Your task to perform on an android device: open app "Upside-Cash back on gas & food" (install if not already installed) Image 0: 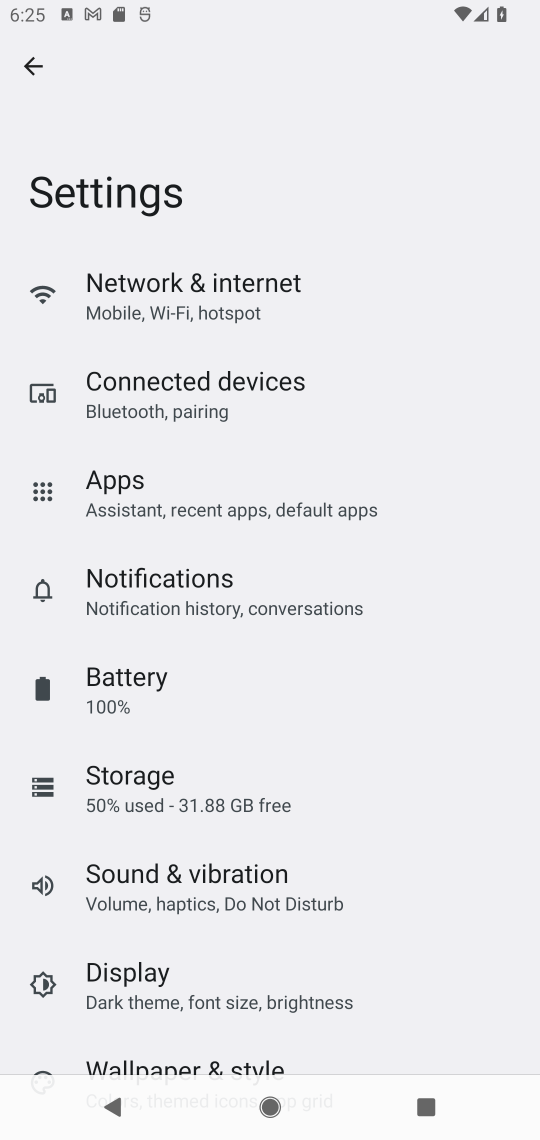
Step 0: press back button
Your task to perform on an android device: open app "Upside-Cash back on gas & food" (install if not already installed) Image 1: 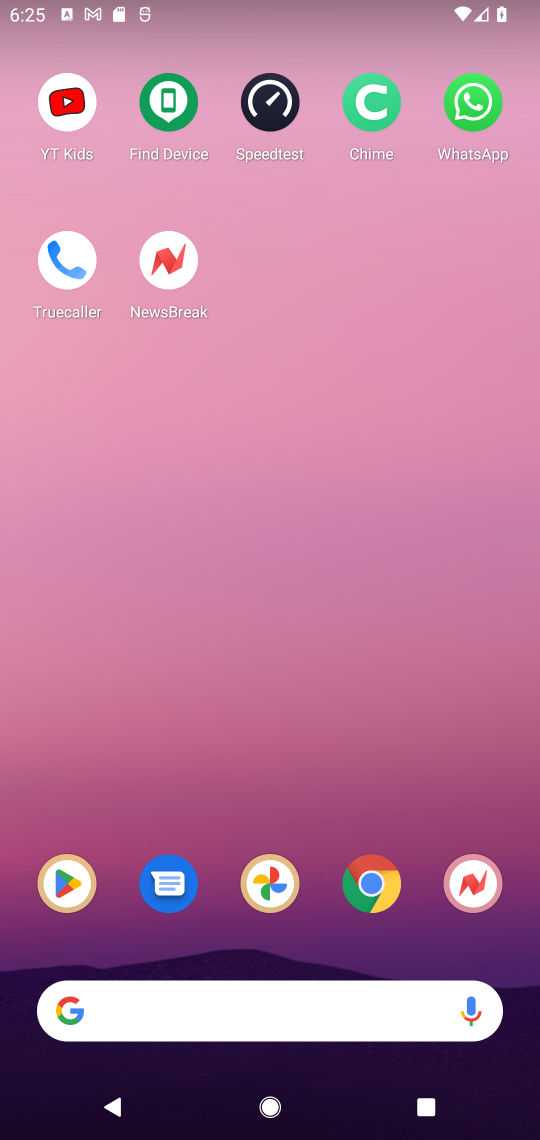
Step 1: click (50, 887)
Your task to perform on an android device: open app "Upside-Cash back on gas & food" (install if not already installed) Image 2: 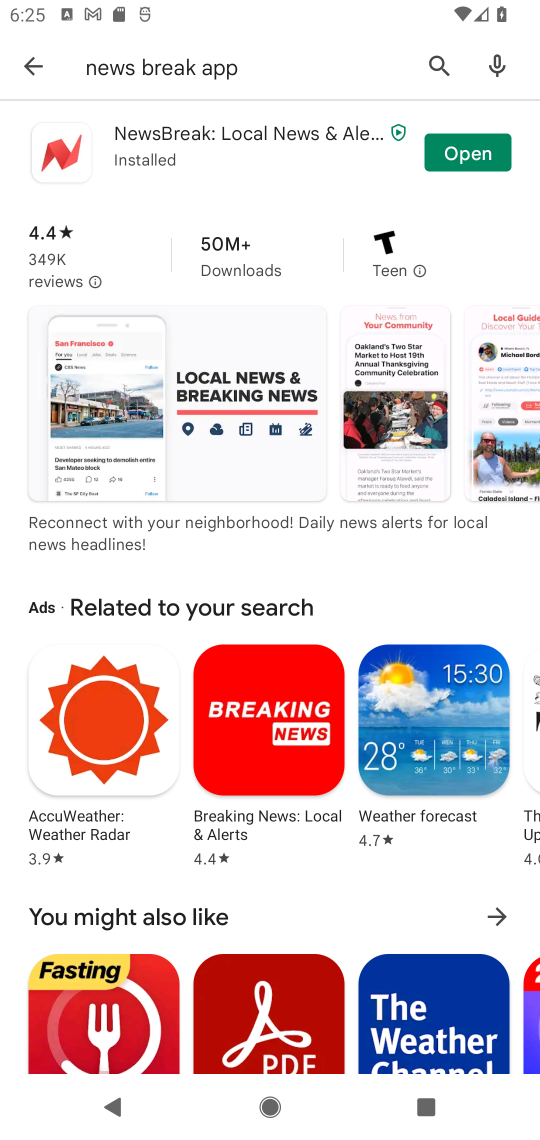
Step 2: click (422, 67)
Your task to perform on an android device: open app "Upside-Cash back on gas & food" (install if not already installed) Image 3: 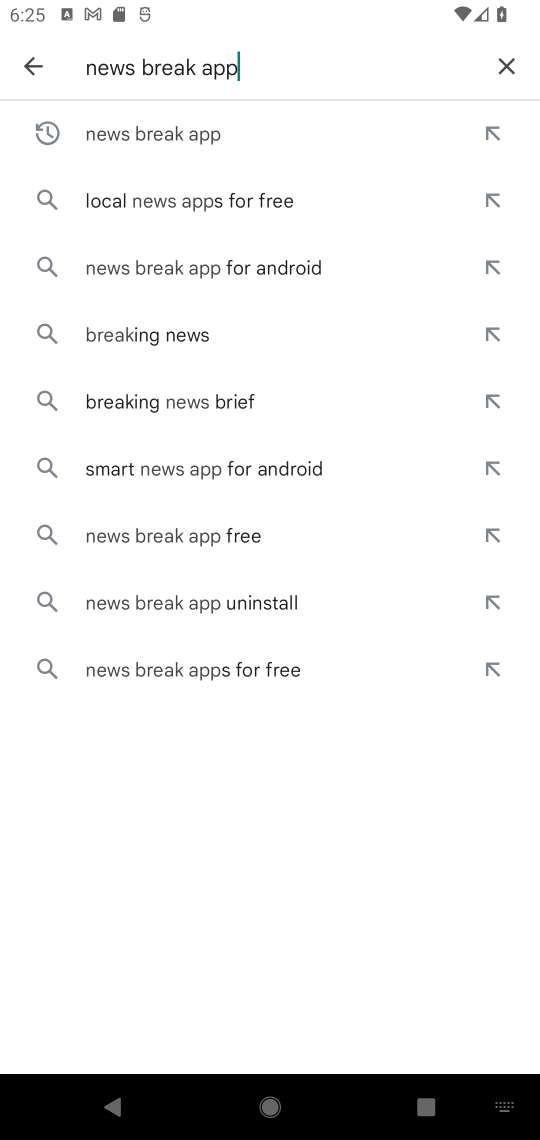
Step 3: click (507, 61)
Your task to perform on an android device: open app "Upside-Cash back on gas & food" (install if not already installed) Image 4: 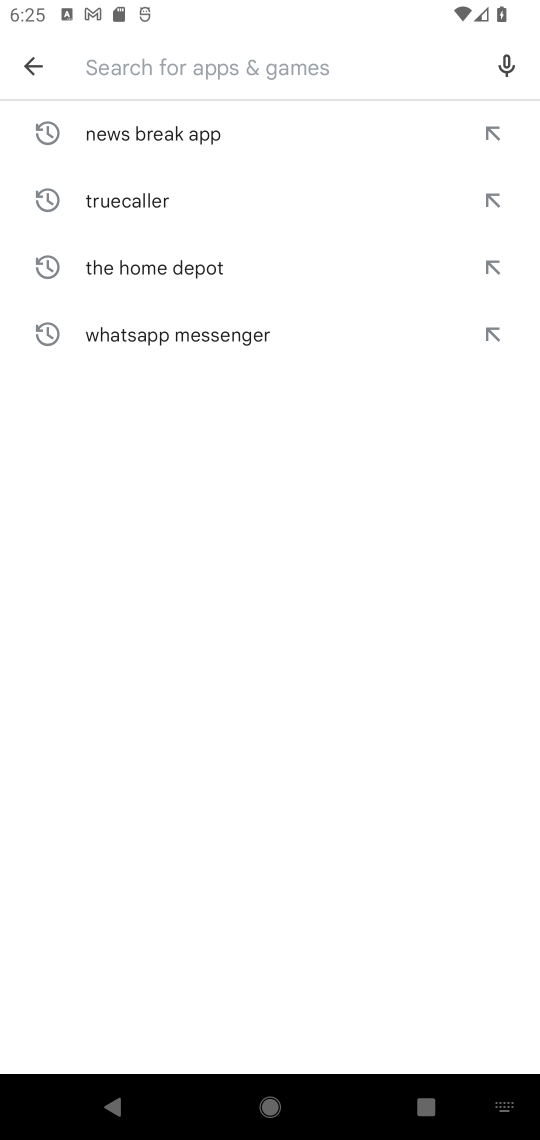
Step 4: click (156, 71)
Your task to perform on an android device: open app "Upside-Cash back on gas & food" (install if not already installed) Image 5: 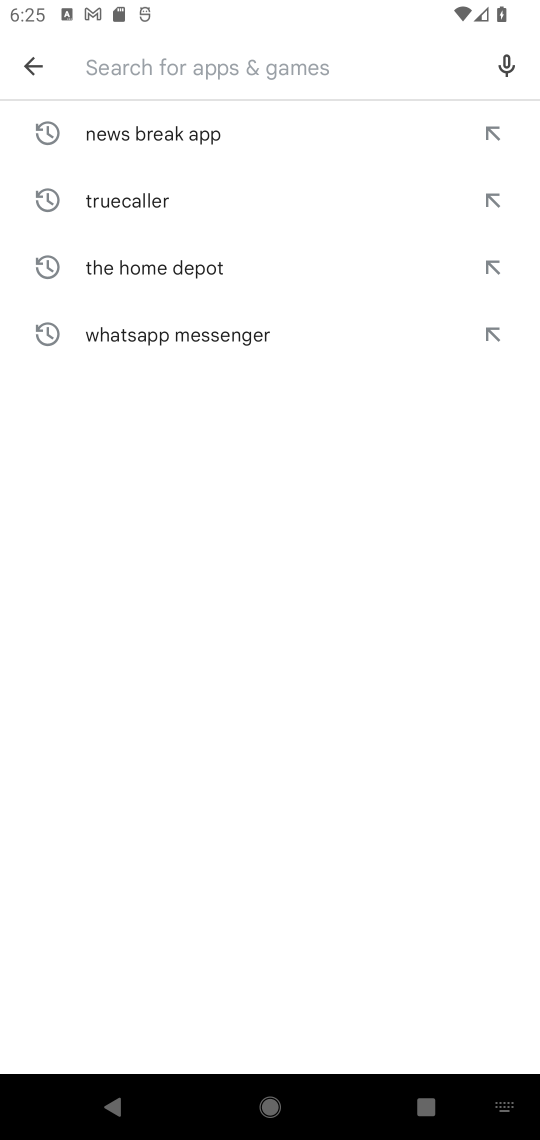
Step 5: type "upside cash"
Your task to perform on an android device: open app "Upside-Cash back on gas & food" (install if not already installed) Image 6: 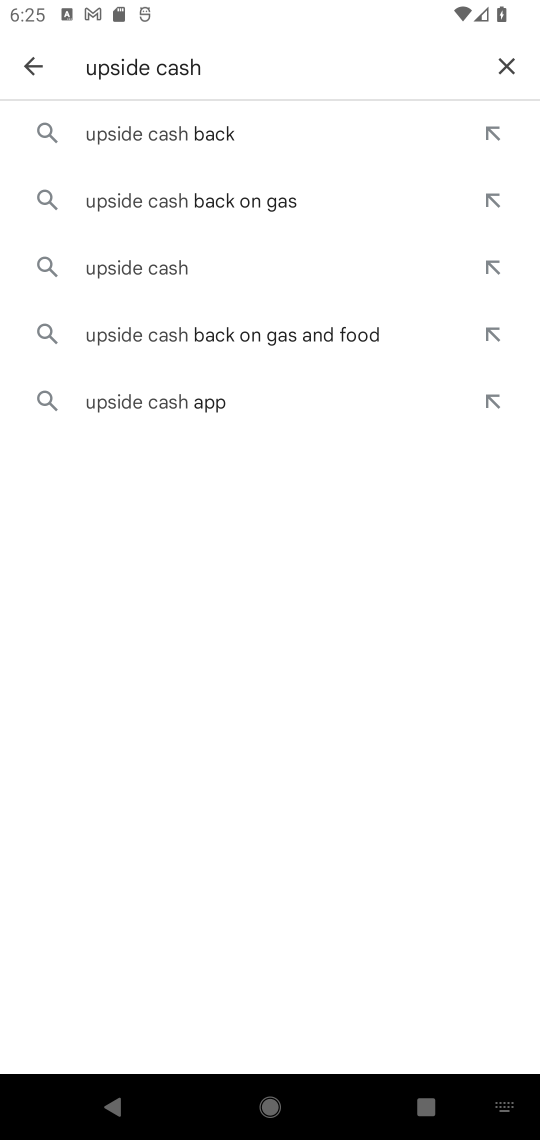
Step 6: click (264, 336)
Your task to perform on an android device: open app "Upside-Cash back on gas & food" (install if not already installed) Image 7: 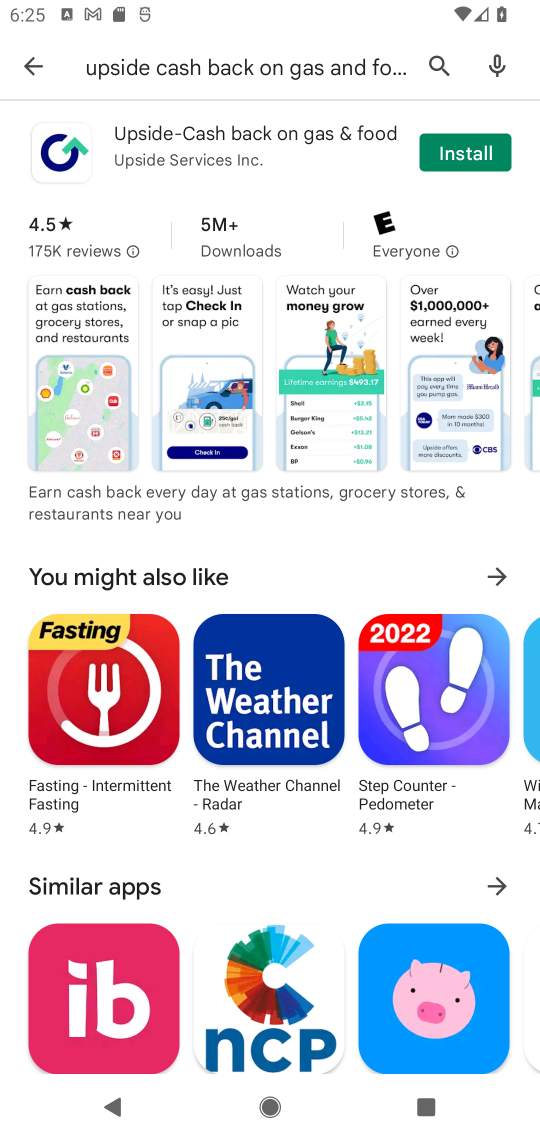
Step 7: click (468, 154)
Your task to perform on an android device: open app "Upside-Cash back on gas & food" (install if not already installed) Image 8: 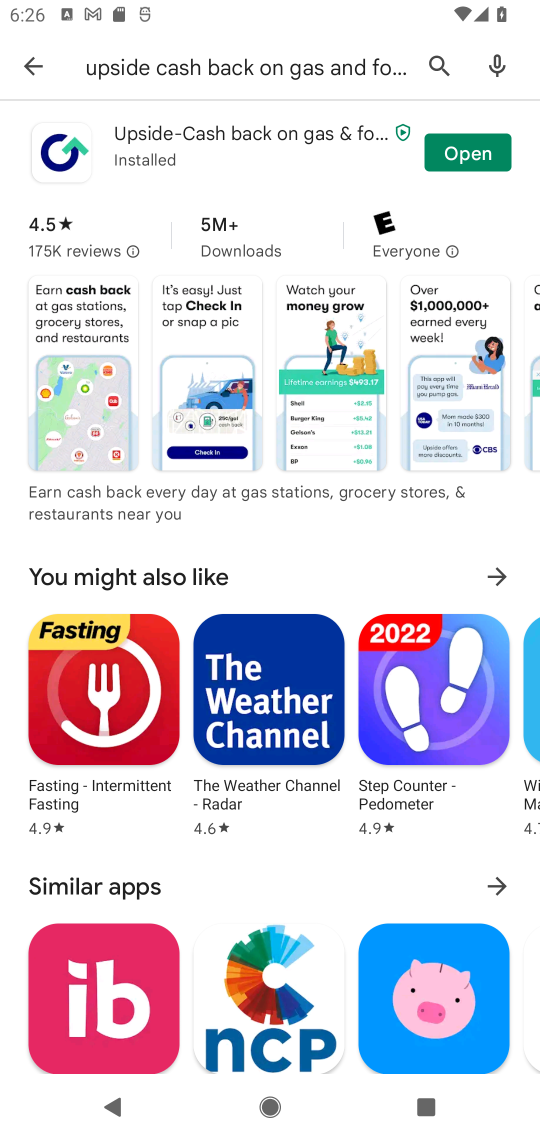
Step 8: click (456, 160)
Your task to perform on an android device: open app "Upside-Cash back on gas & food" (install if not already installed) Image 9: 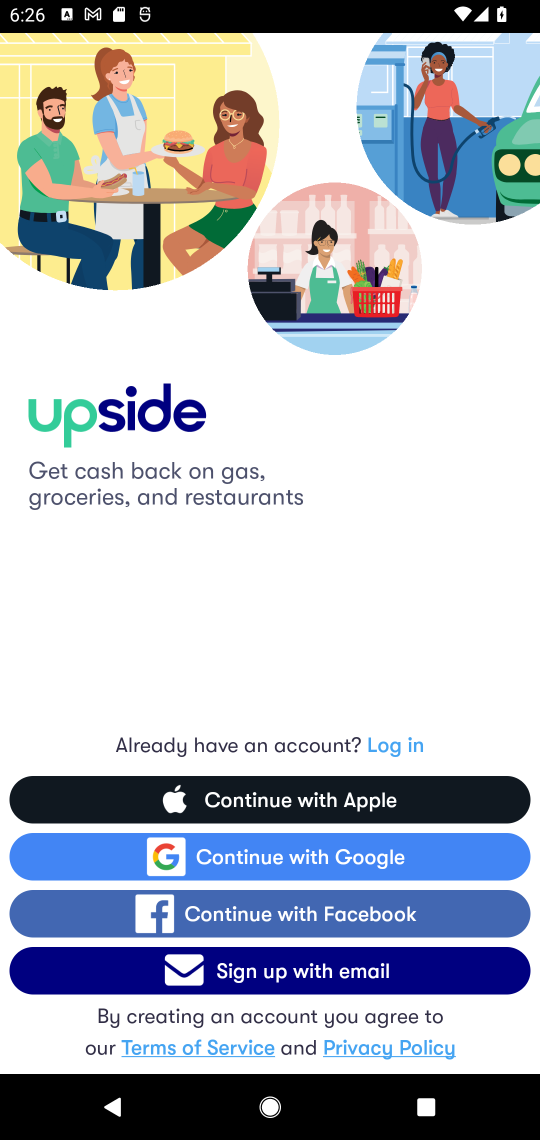
Step 9: task complete